Your task to perform on an android device: Go to network settings Image 0: 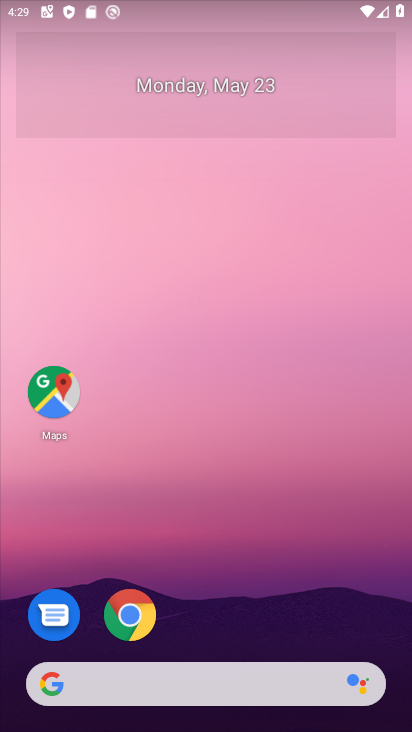
Step 0: drag from (280, 530) to (297, 110)
Your task to perform on an android device: Go to network settings Image 1: 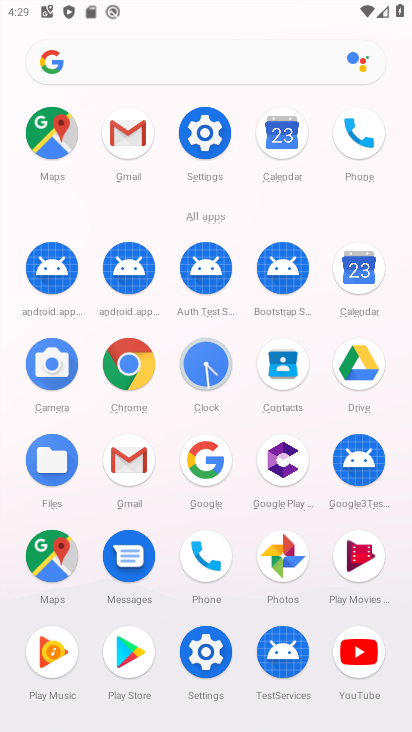
Step 1: click (205, 126)
Your task to perform on an android device: Go to network settings Image 2: 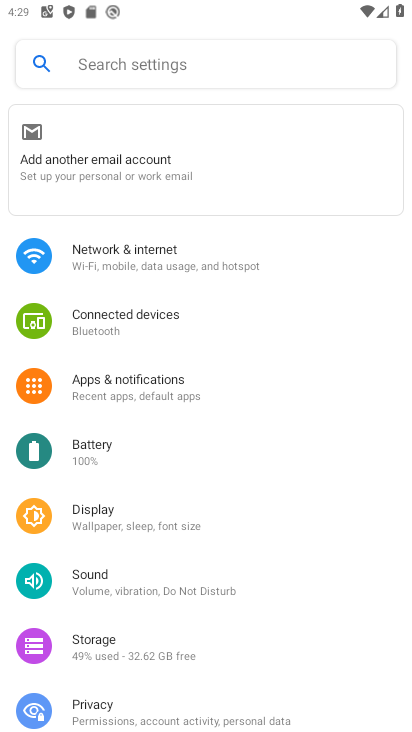
Step 2: click (144, 263)
Your task to perform on an android device: Go to network settings Image 3: 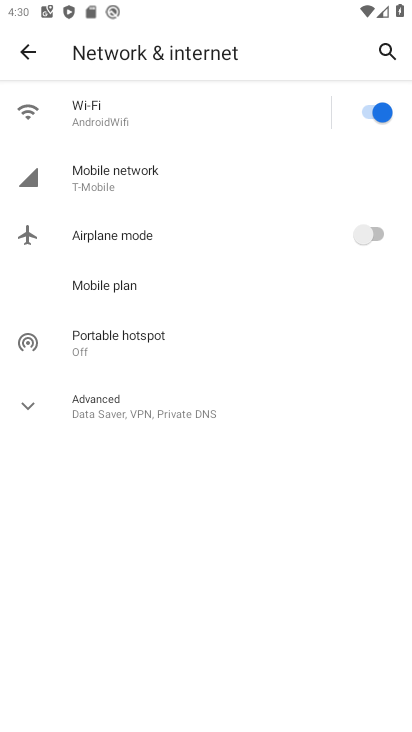
Step 3: task complete